Your task to perform on an android device: Search for "acer nitro" on target.com, select the first entry, and add it to the cart. Image 0: 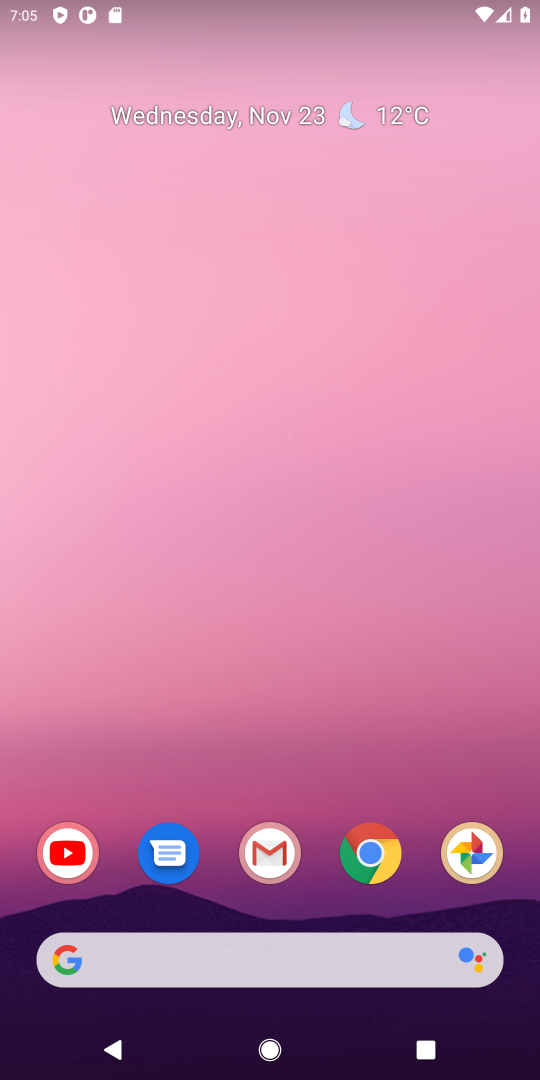
Step 0: click (361, 847)
Your task to perform on an android device: Search for "acer nitro" on target.com, select the first entry, and add it to the cart. Image 1: 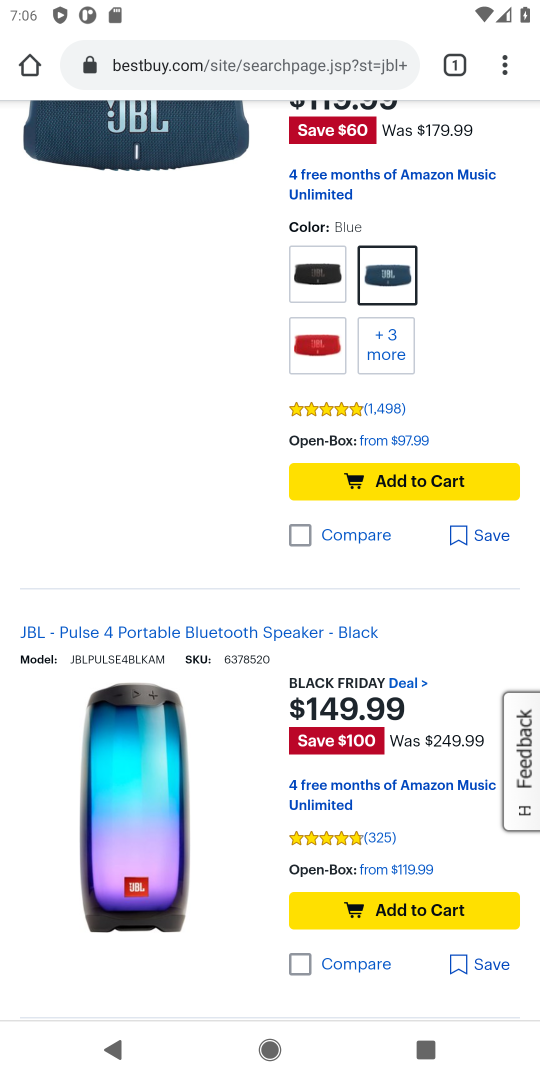
Step 1: click (275, 70)
Your task to perform on an android device: Search for "acer nitro" on target.com, select the first entry, and add it to the cart. Image 2: 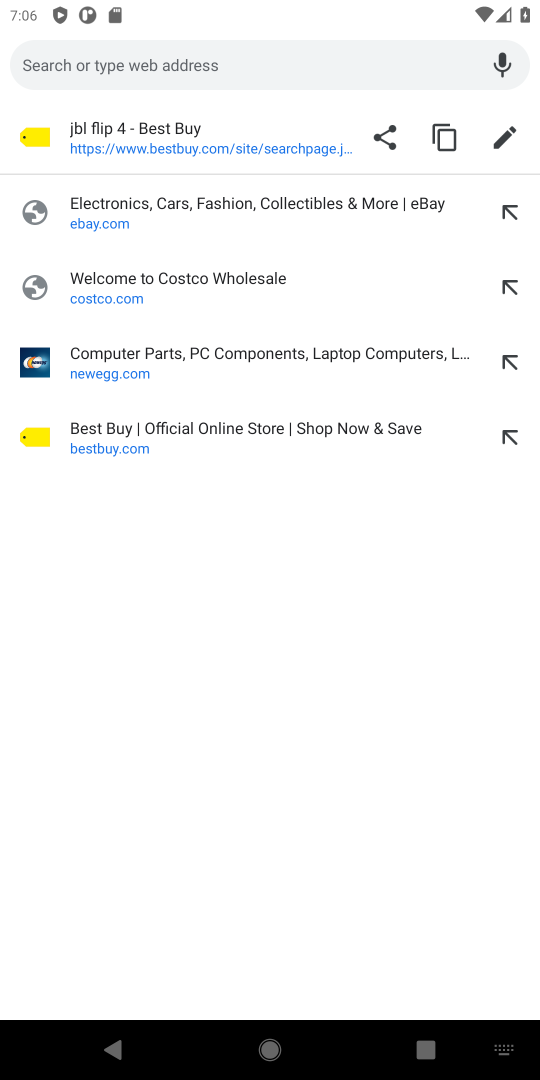
Step 2: type "target.com"
Your task to perform on an android device: Search for "acer nitro" on target.com, select the first entry, and add it to the cart. Image 3: 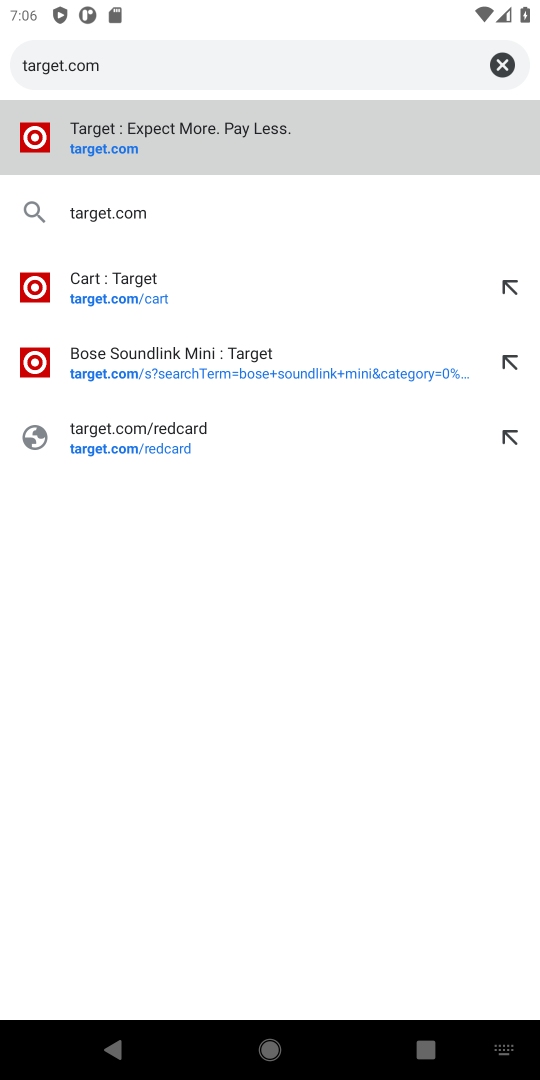
Step 3: click (90, 152)
Your task to perform on an android device: Search for "acer nitro" on target.com, select the first entry, and add it to the cart. Image 4: 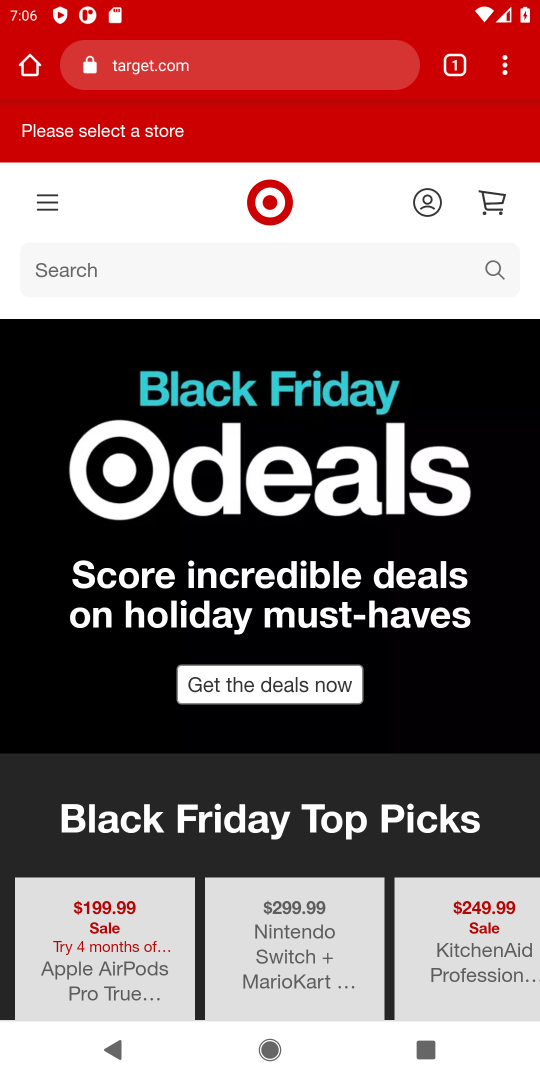
Step 4: click (486, 277)
Your task to perform on an android device: Search for "acer nitro" on target.com, select the first entry, and add it to the cart. Image 5: 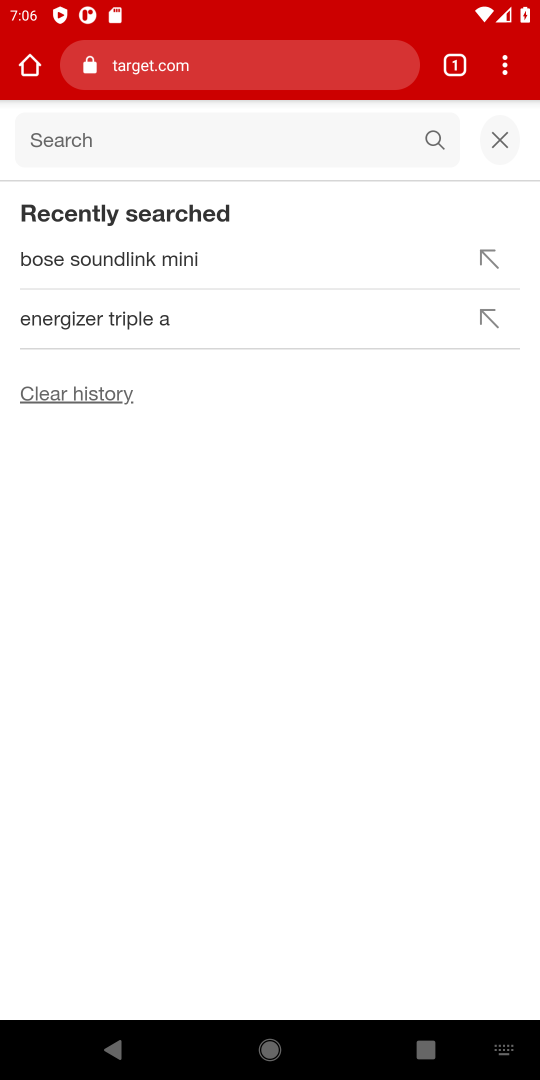
Step 5: type "acer nitro"
Your task to perform on an android device: Search for "acer nitro" on target.com, select the first entry, and add it to the cart. Image 6: 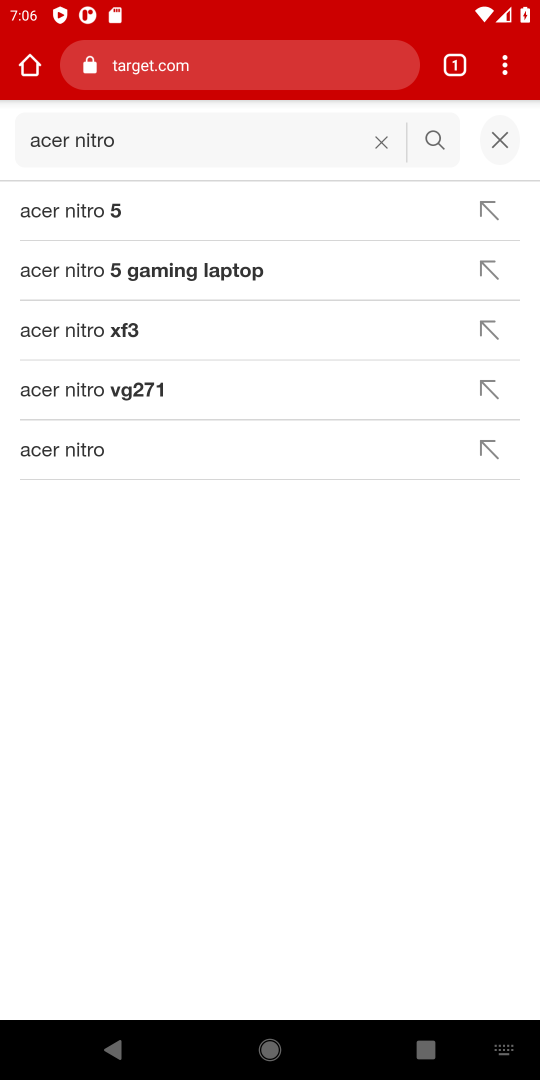
Step 6: click (51, 453)
Your task to perform on an android device: Search for "acer nitro" on target.com, select the first entry, and add it to the cart. Image 7: 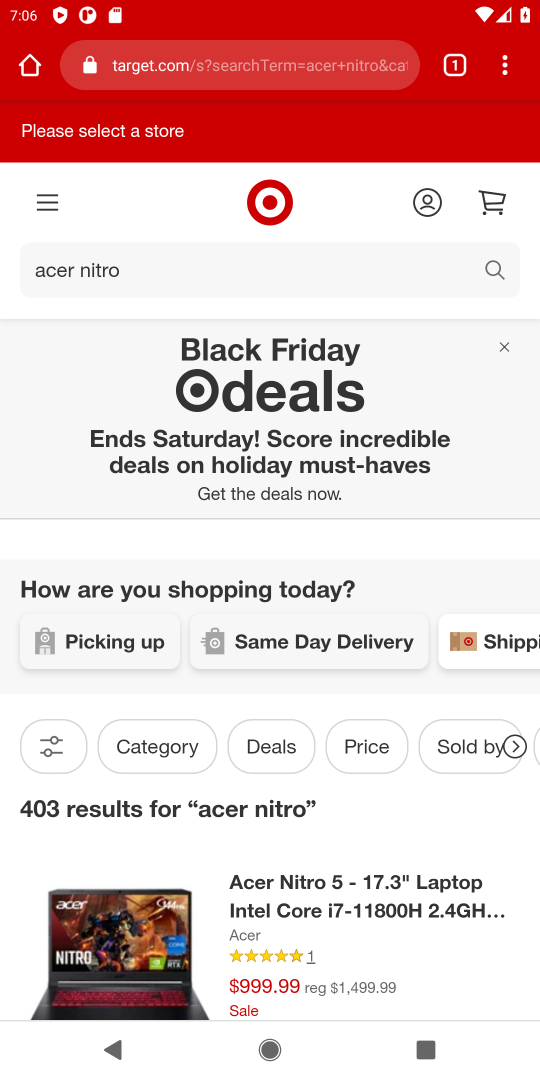
Step 7: drag from (244, 872) to (223, 484)
Your task to perform on an android device: Search for "acer nitro" on target.com, select the first entry, and add it to the cart. Image 8: 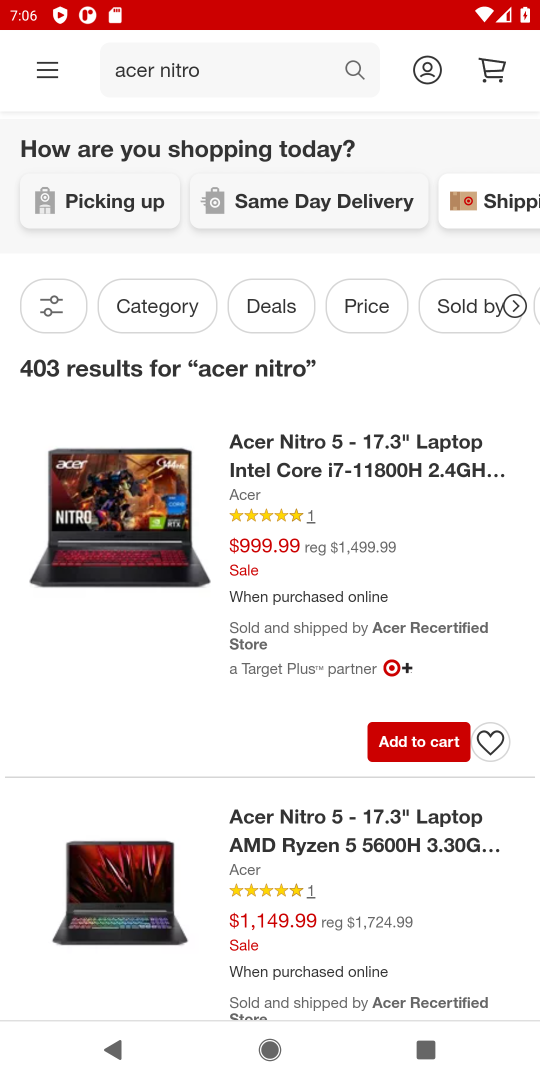
Step 8: click (420, 743)
Your task to perform on an android device: Search for "acer nitro" on target.com, select the first entry, and add it to the cart. Image 9: 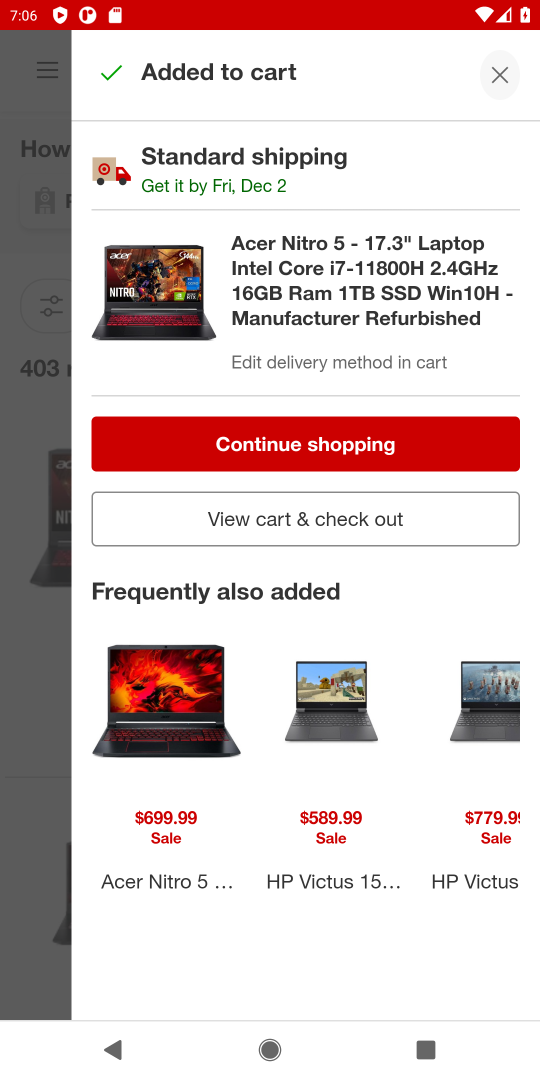
Step 9: click (290, 518)
Your task to perform on an android device: Search for "acer nitro" on target.com, select the first entry, and add it to the cart. Image 10: 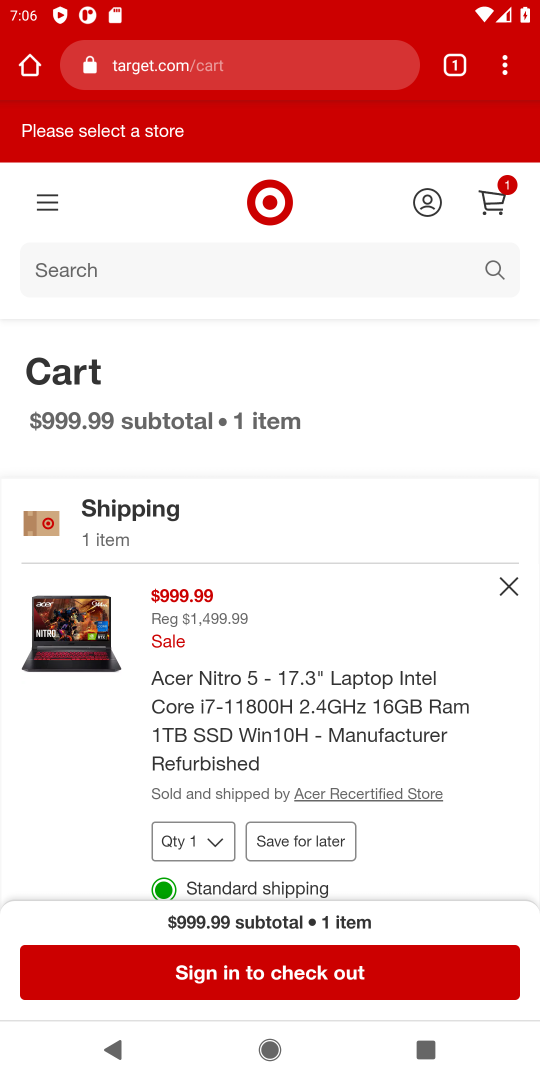
Step 10: click (239, 970)
Your task to perform on an android device: Search for "acer nitro" on target.com, select the first entry, and add it to the cart. Image 11: 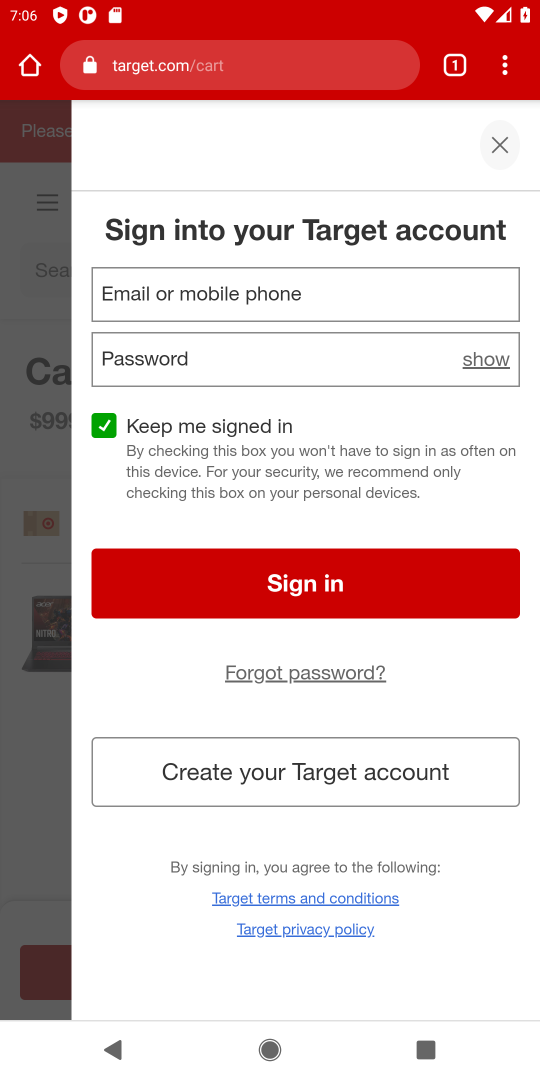
Step 11: task complete